Your task to perform on an android device: Open Google Image 0: 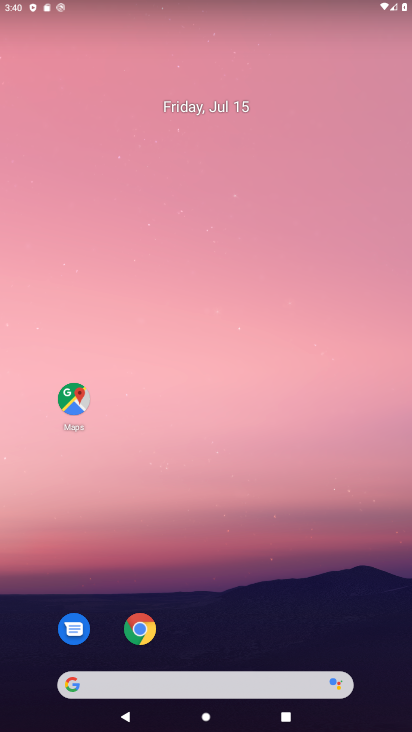
Step 0: press home button
Your task to perform on an android device: Open Google Image 1: 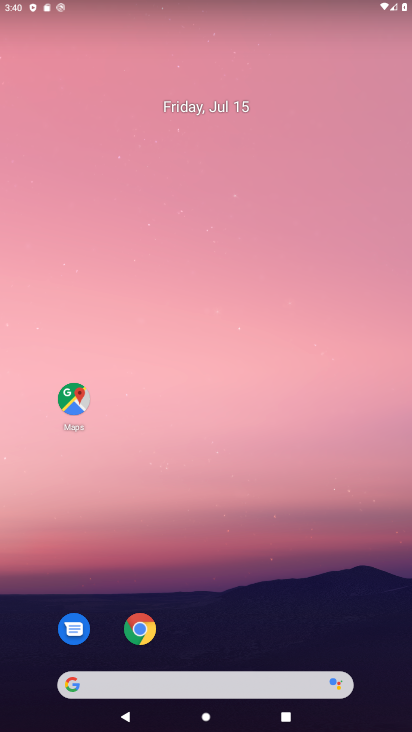
Step 1: drag from (243, 601) to (230, 70)
Your task to perform on an android device: Open Google Image 2: 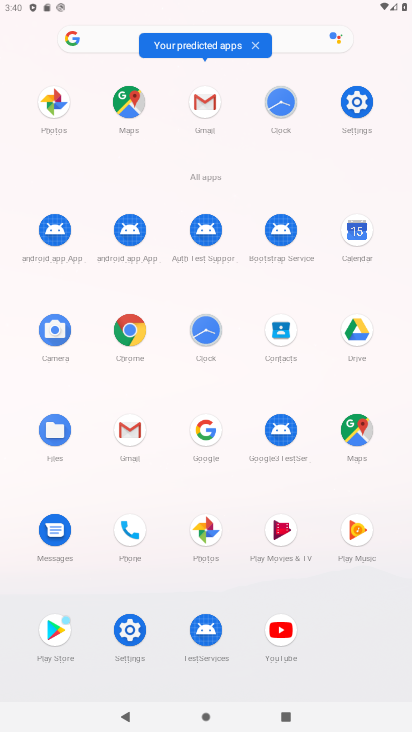
Step 2: click (206, 433)
Your task to perform on an android device: Open Google Image 3: 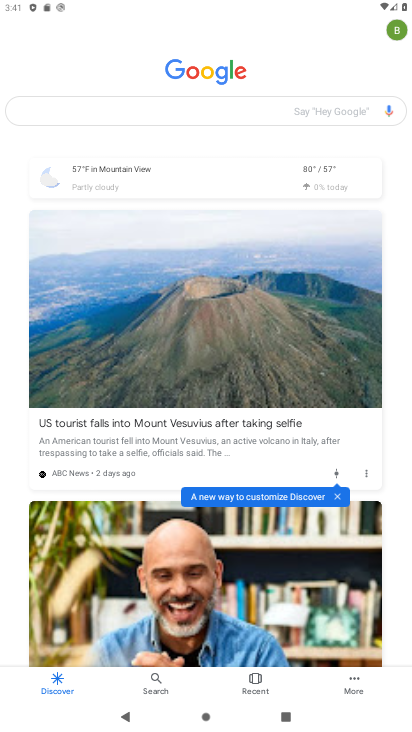
Step 3: task complete